Your task to perform on an android device: Is it going to rain this weekend? Image 0: 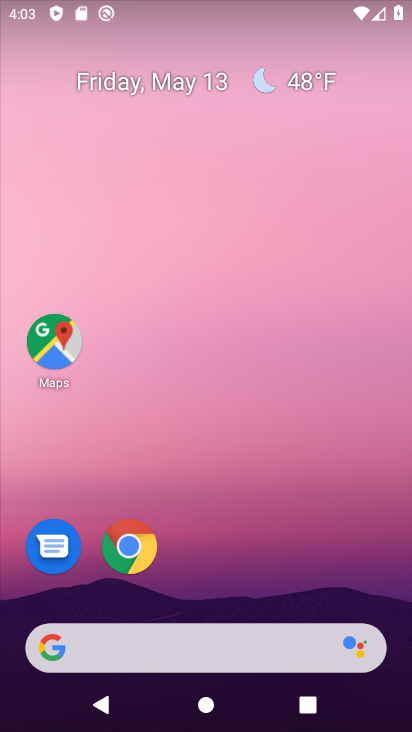
Step 0: drag from (348, 655) to (108, 102)
Your task to perform on an android device: Is it going to rain this weekend? Image 1: 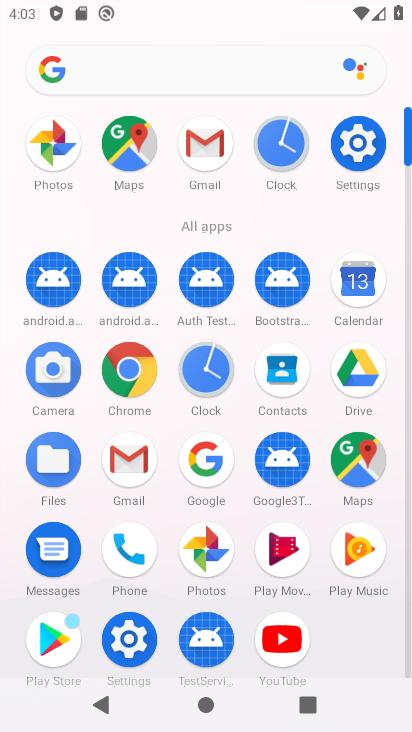
Step 1: press home button
Your task to perform on an android device: Is it going to rain this weekend? Image 2: 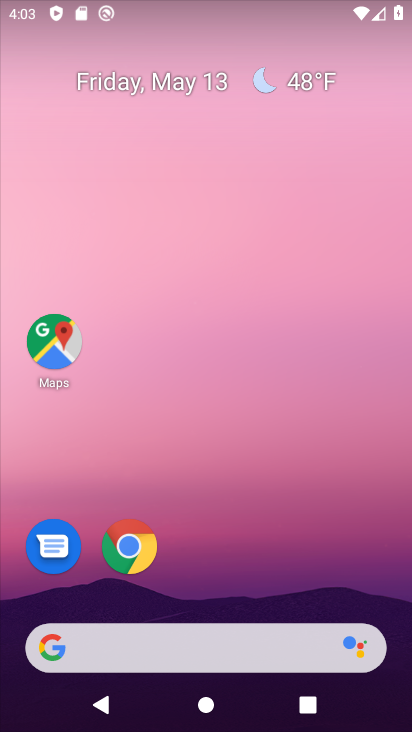
Step 2: drag from (19, 167) to (411, 402)
Your task to perform on an android device: Is it going to rain this weekend? Image 3: 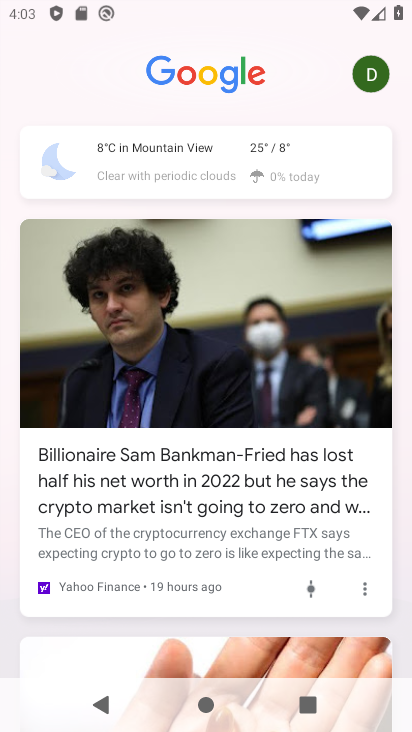
Step 3: click (186, 146)
Your task to perform on an android device: Is it going to rain this weekend? Image 4: 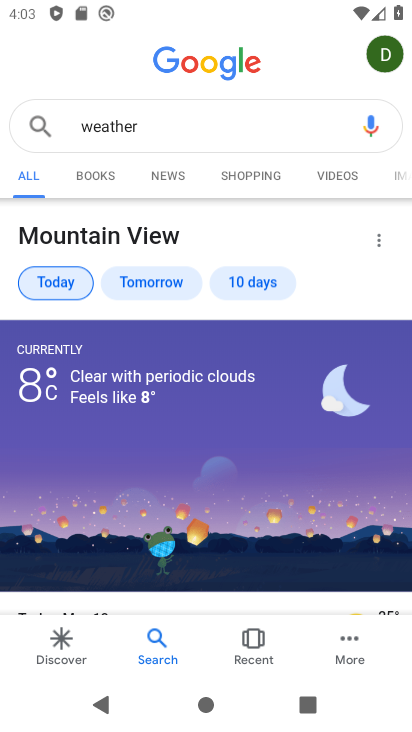
Step 4: click (166, 132)
Your task to perform on an android device: Is it going to rain this weekend? Image 5: 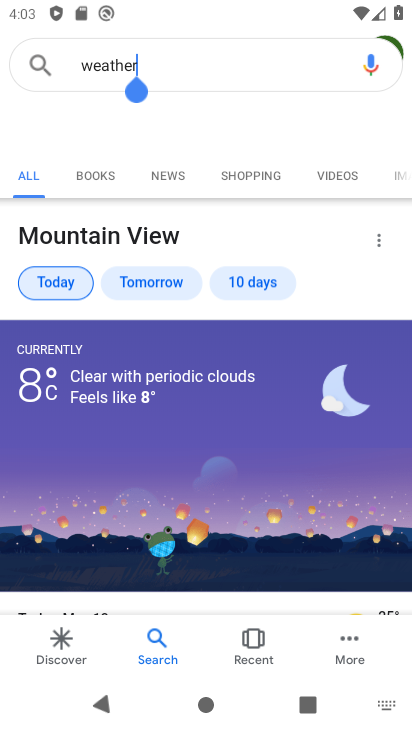
Step 5: click (151, 121)
Your task to perform on an android device: Is it going to rain this weekend? Image 6: 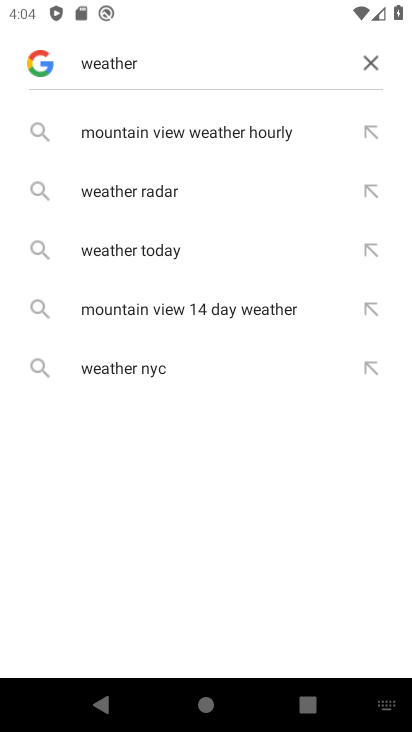
Step 6: type "this weekend"
Your task to perform on an android device: Is it going to rain this weekend? Image 7: 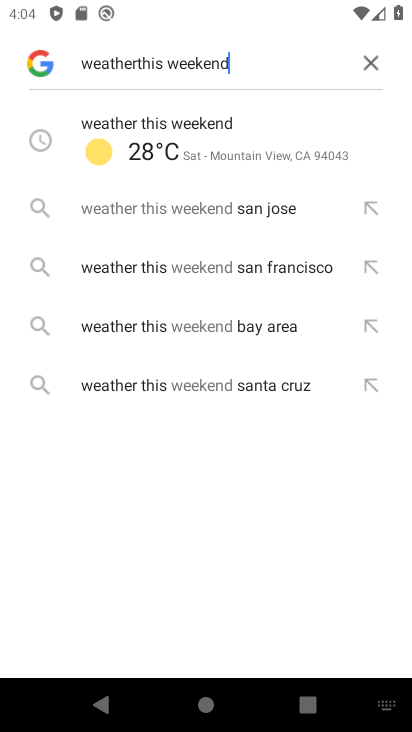
Step 7: click (197, 144)
Your task to perform on an android device: Is it going to rain this weekend? Image 8: 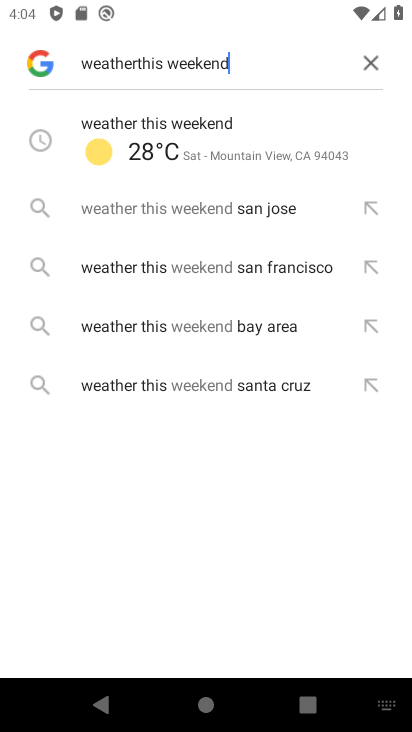
Step 8: click (197, 144)
Your task to perform on an android device: Is it going to rain this weekend? Image 9: 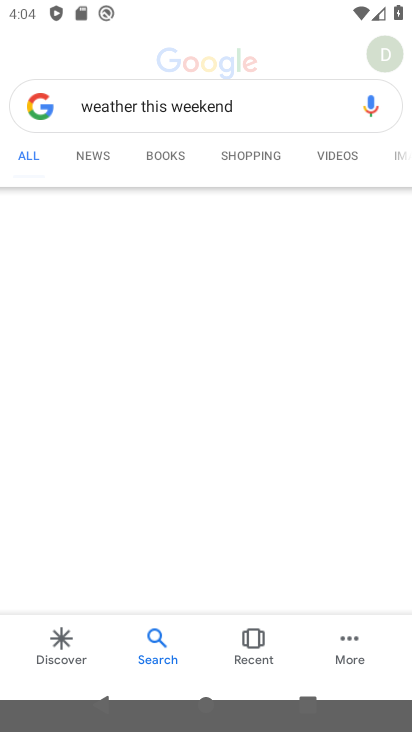
Step 9: click (197, 144)
Your task to perform on an android device: Is it going to rain this weekend? Image 10: 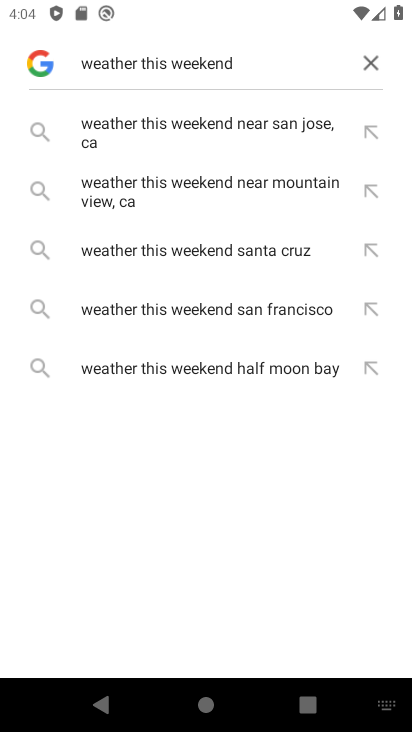
Step 10: task complete